Your task to perform on an android device: turn off airplane mode Image 0: 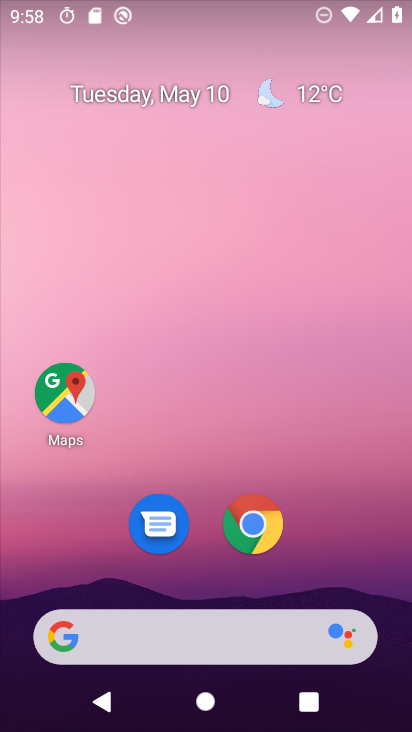
Step 0: drag from (217, 456) to (218, 0)
Your task to perform on an android device: turn off airplane mode Image 1: 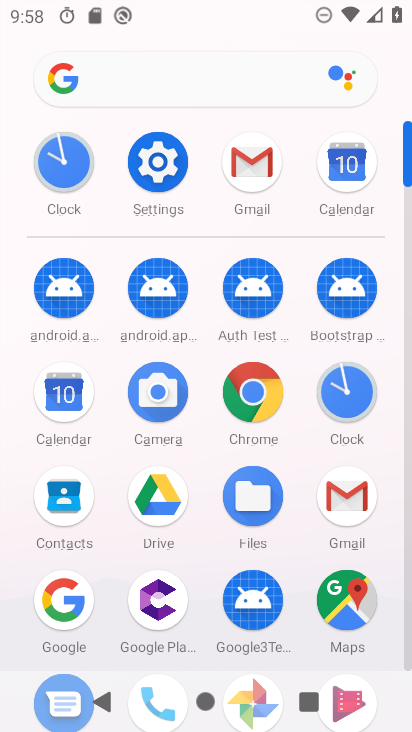
Step 1: click (159, 165)
Your task to perform on an android device: turn off airplane mode Image 2: 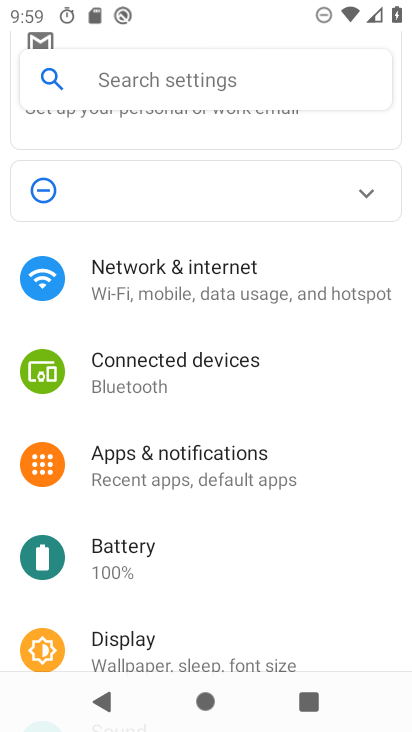
Step 2: drag from (220, 352) to (220, 389)
Your task to perform on an android device: turn off airplane mode Image 3: 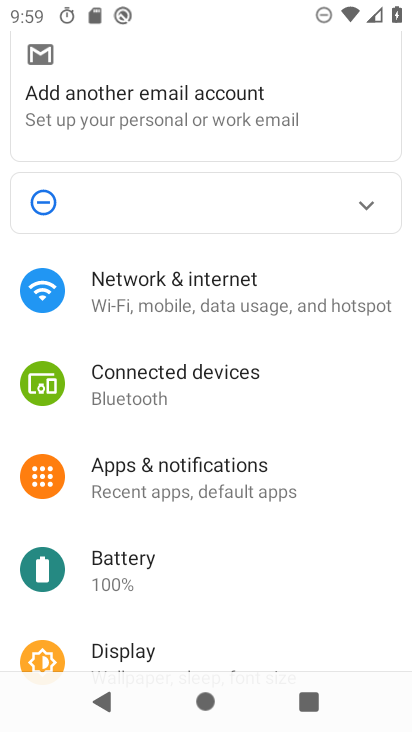
Step 3: click (228, 287)
Your task to perform on an android device: turn off airplane mode Image 4: 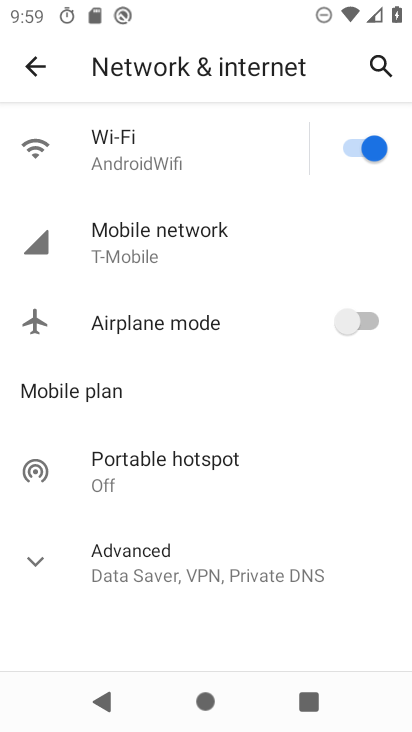
Step 4: task complete